Your task to perform on an android device: change timer sound Image 0: 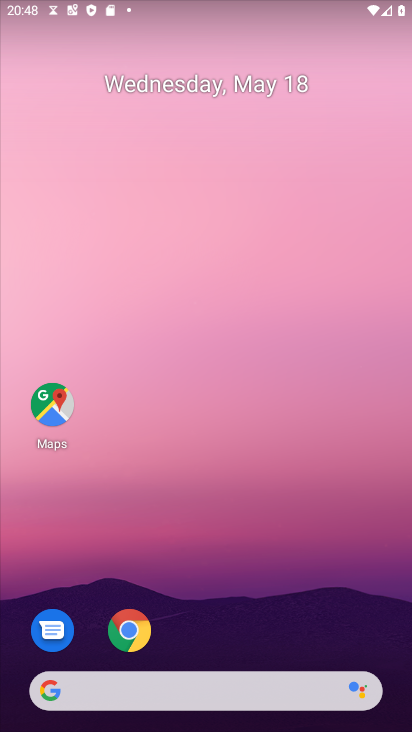
Step 0: press home button
Your task to perform on an android device: change timer sound Image 1: 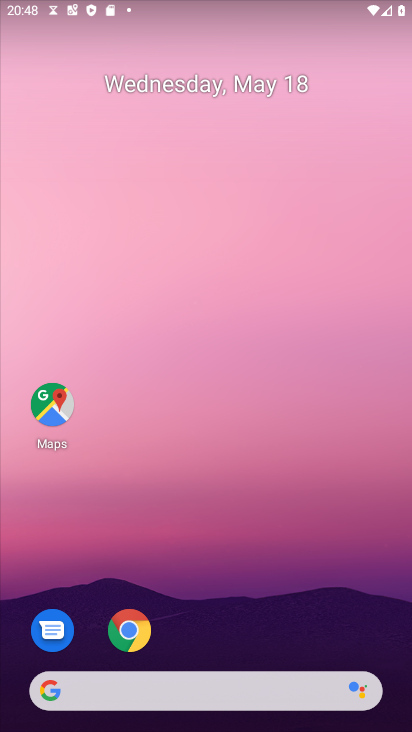
Step 1: drag from (201, 694) to (303, 273)
Your task to perform on an android device: change timer sound Image 2: 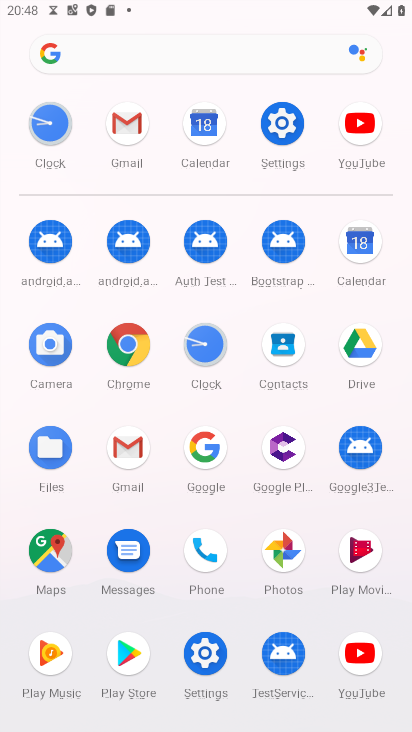
Step 2: click (199, 352)
Your task to perform on an android device: change timer sound Image 3: 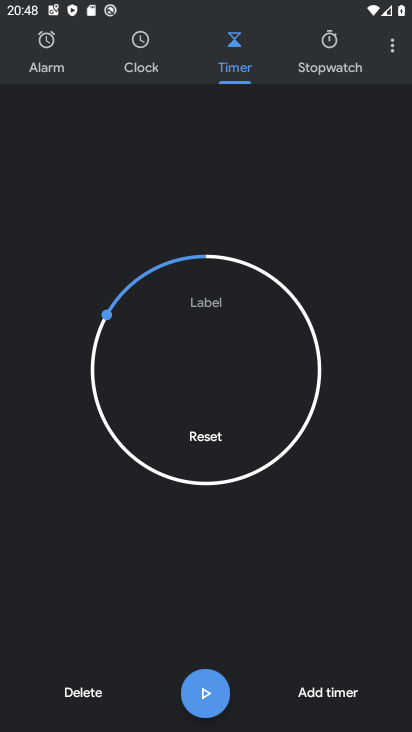
Step 3: click (393, 45)
Your task to perform on an android device: change timer sound Image 4: 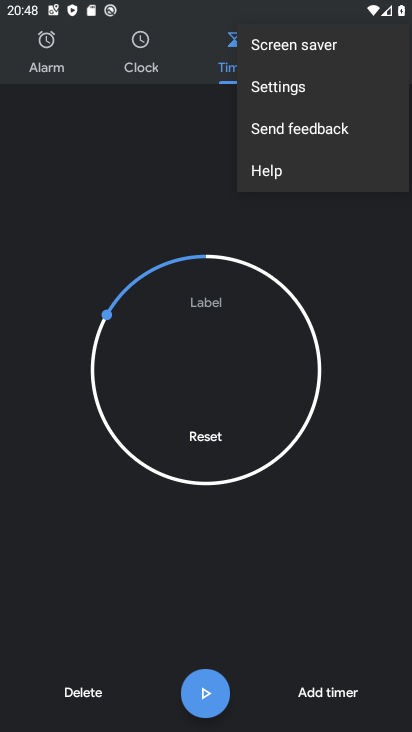
Step 4: click (317, 99)
Your task to perform on an android device: change timer sound Image 5: 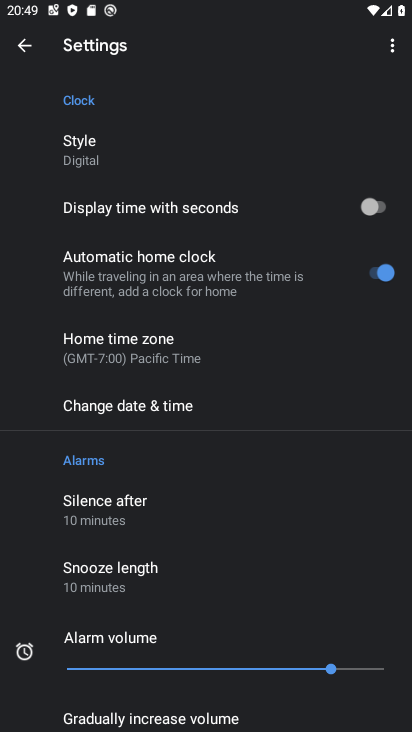
Step 5: drag from (167, 574) to (280, 130)
Your task to perform on an android device: change timer sound Image 6: 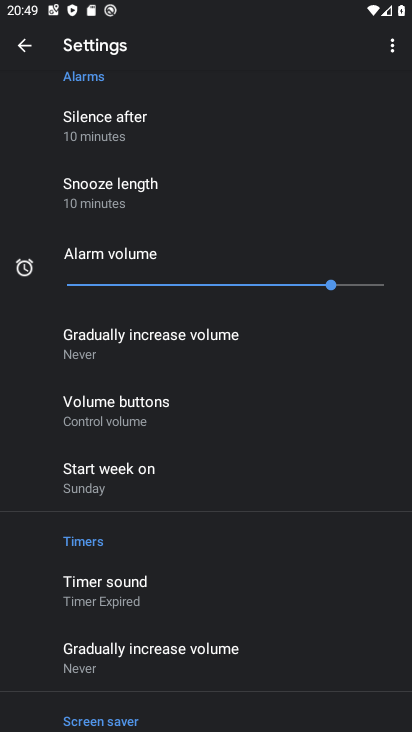
Step 6: click (132, 579)
Your task to perform on an android device: change timer sound Image 7: 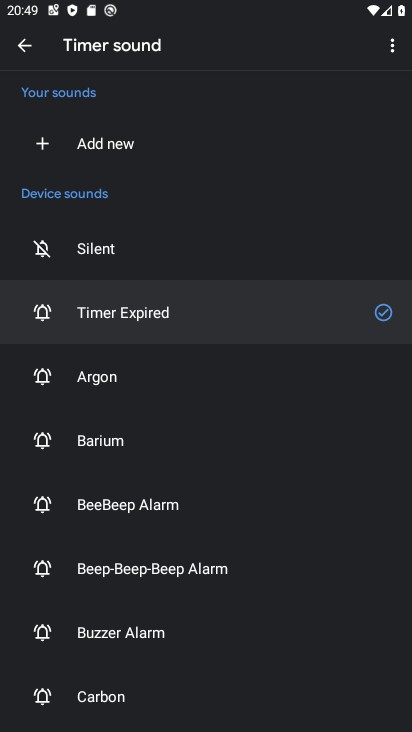
Step 7: click (108, 439)
Your task to perform on an android device: change timer sound Image 8: 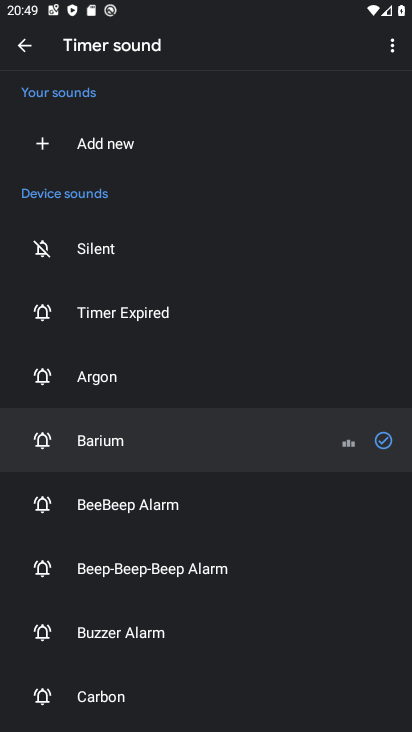
Step 8: task complete